Your task to perform on an android device: Show me popular videos on Youtube Image 0: 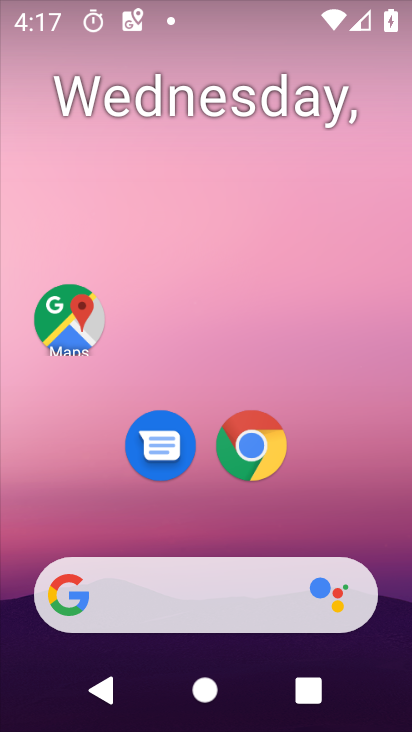
Step 0: drag from (210, 530) to (218, 83)
Your task to perform on an android device: Show me popular videos on Youtube Image 1: 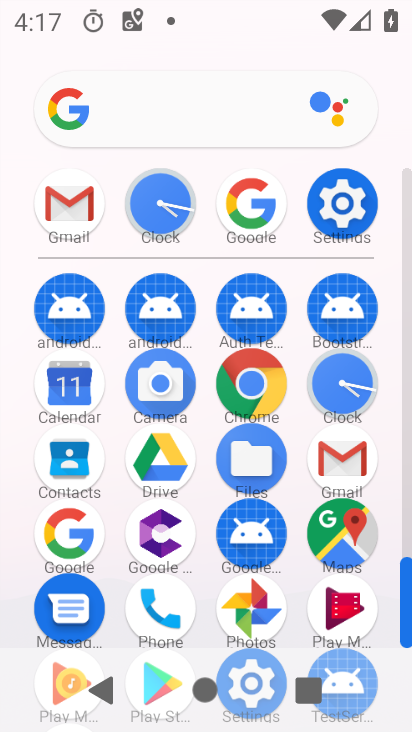
Step 1: drag from (197, 571) to (225, 181)
Your task to perform on an android device: Show me popular videos on Youtube Image 2: 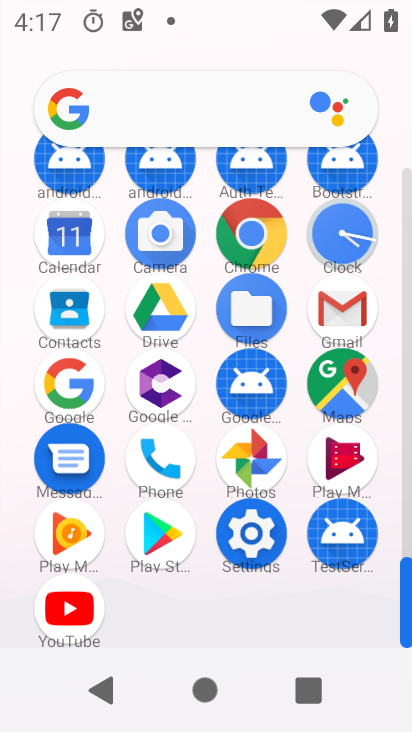
Step 2: click (69, 620)
Your task to perform on an android device: Show me popular videos on Youtube Image 3: 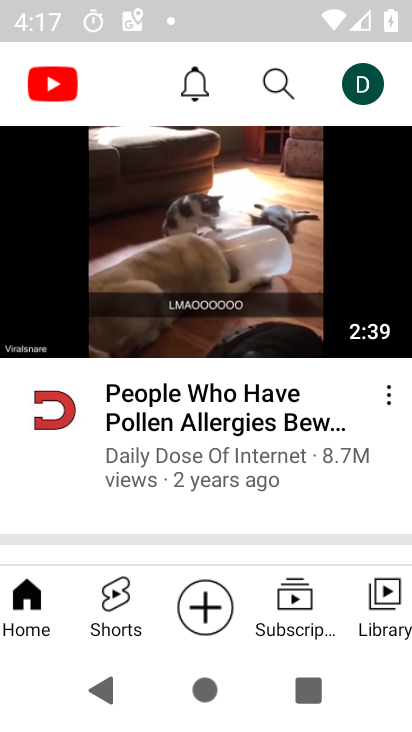
Step 3: click (276, 79)
Your task to perform on an android device: Show me popular videos on Youtube Image 4: 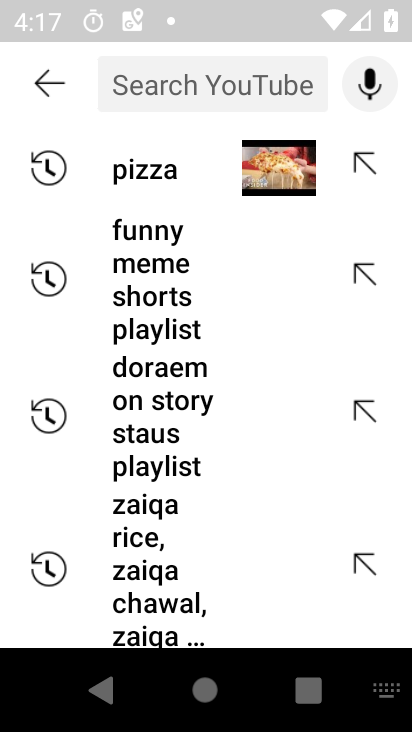
Step 4: task complete